Your task to perform on an android device: Search for "dell xps" on target, select the first entry, and add it to the cart. Image 0: 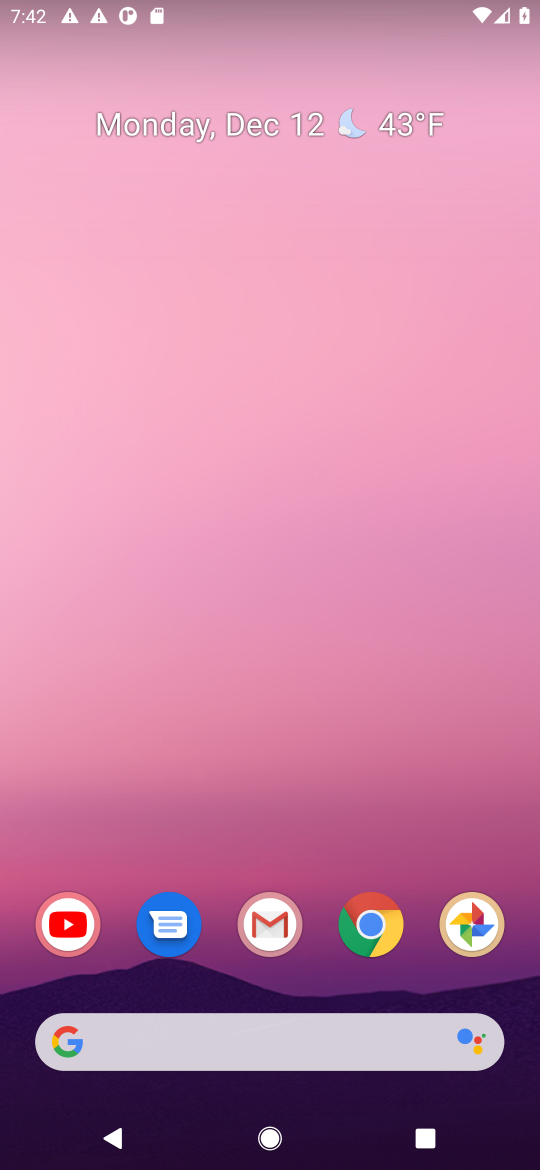
Step 0: click (255, 1041)
Your task to perform on an android device: Search for "dell xps" on target, select the first entry, and add it to the cart. Image 1: 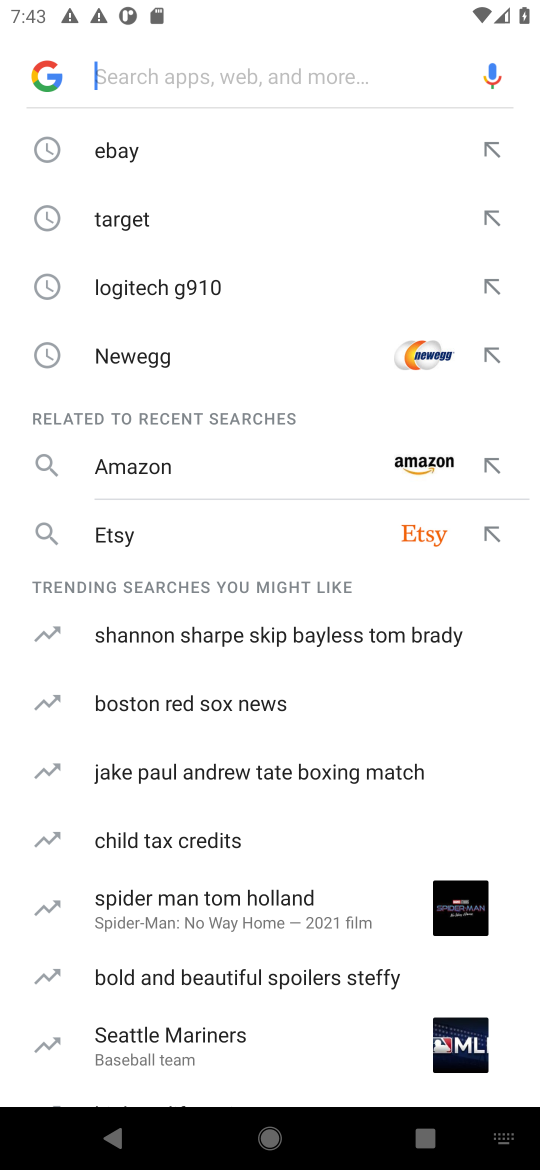
Step 1: click (148, 228)
Your task to perform on an android device: Search for "dell xps" on target, select the first entry, and add it to the cart. Image 2: 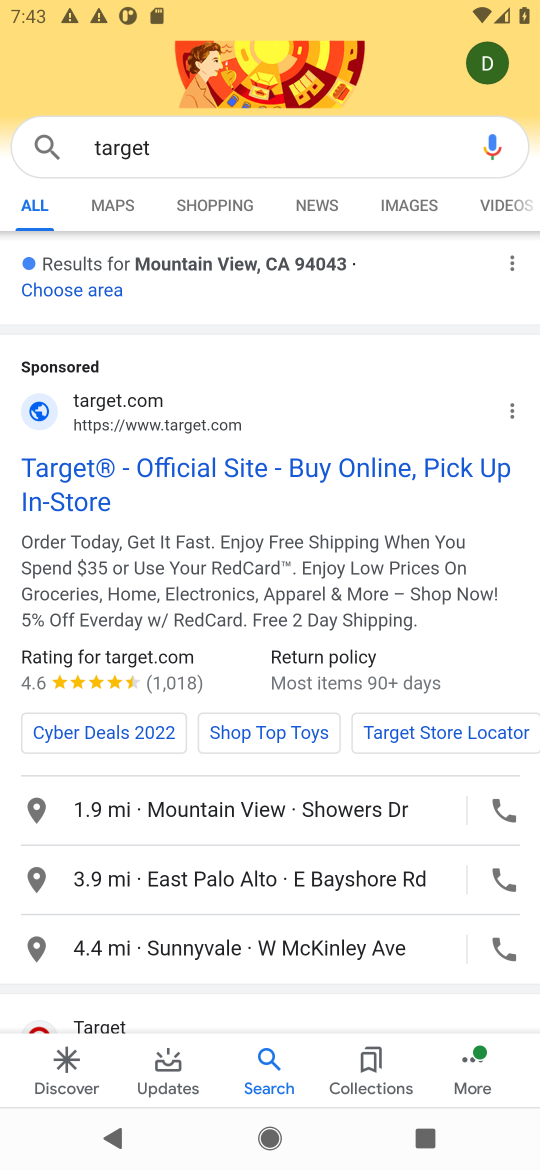
Step 2: drag from (229, 547) to (237, 250)
Your task to perform on an android device: Search for "dell xps" on target, select the first entry, and add it to the cart. Image 3: 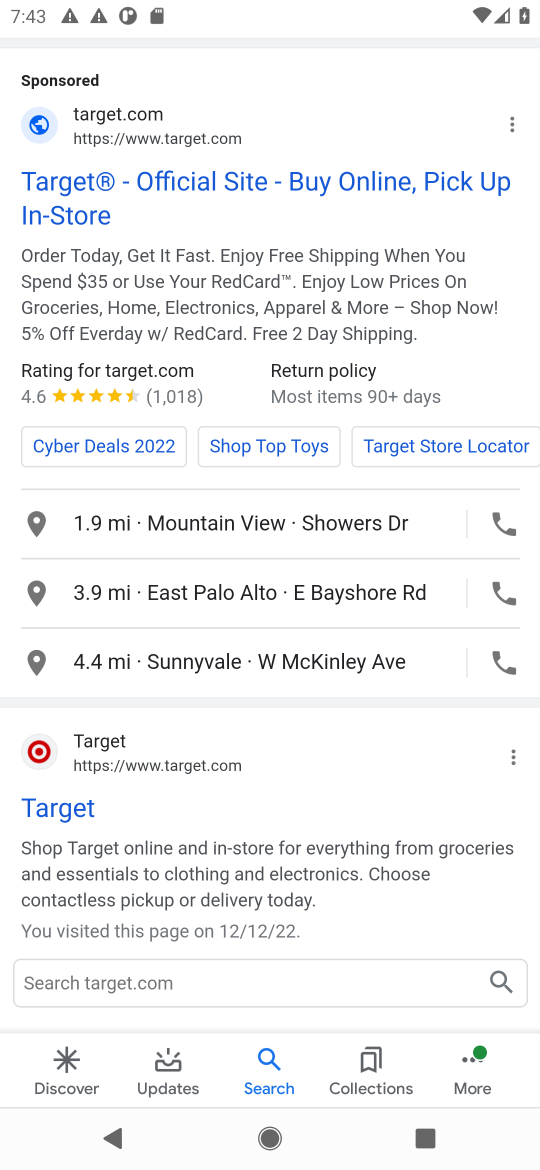
Step 3: click (78, 798)
Your task to perform on an android device: Search for "dell xps" on target, select the first entry, and add it to the cart. Image 4: 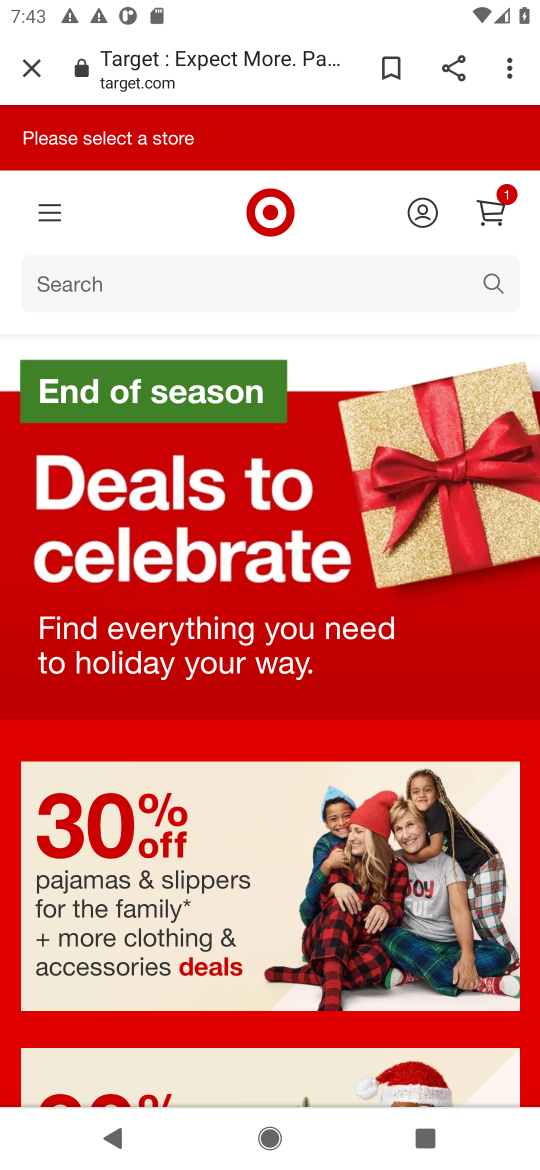
Step 4: click (127, 271)
Your task to perform on an android device: Search for "dell xps" on target, select the first entry, and add it to the cart. Image 5: 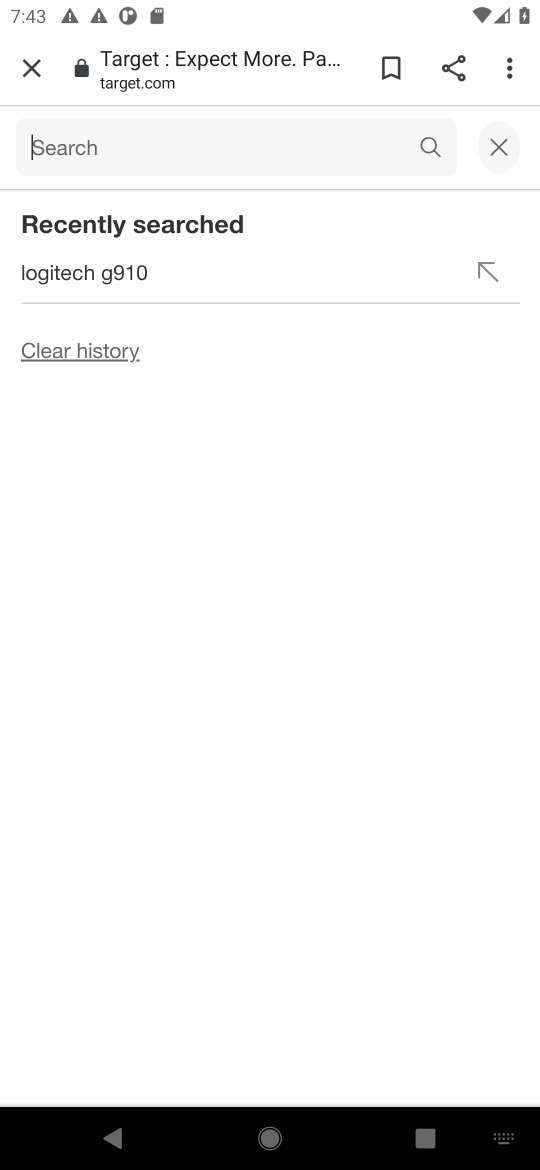
Step 5: type "dell xps"
Your task to perform on an android device: Search for "dell xps" on target, select the first entry, and add it to the cart. Image 6: 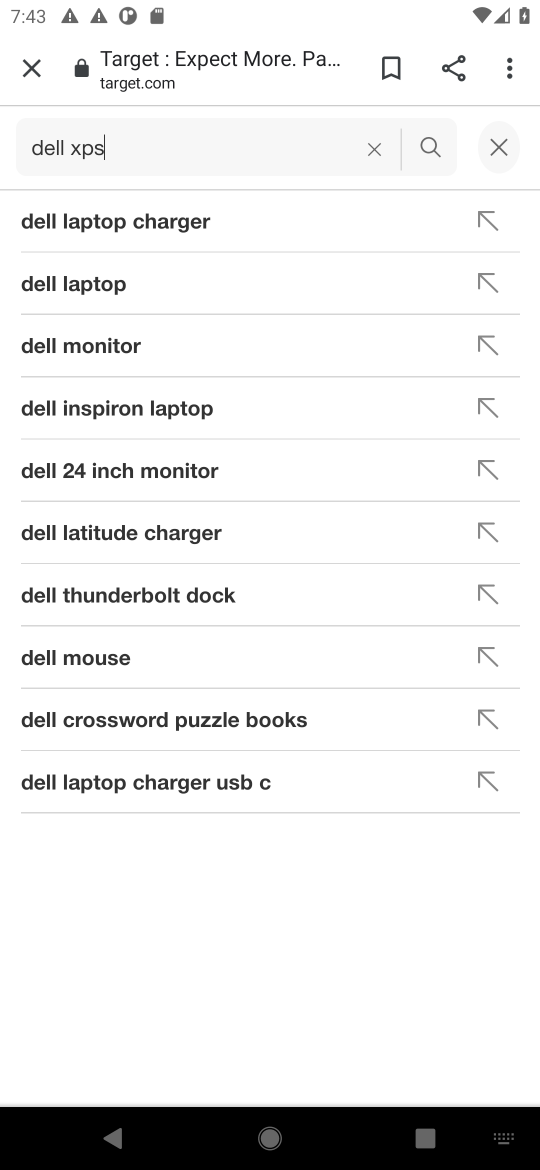
Step 6: click (444, 154)
Your task to perform on an android device: Search for "dell xps" on target, select the first entry, and add it to the cart. Image 7: 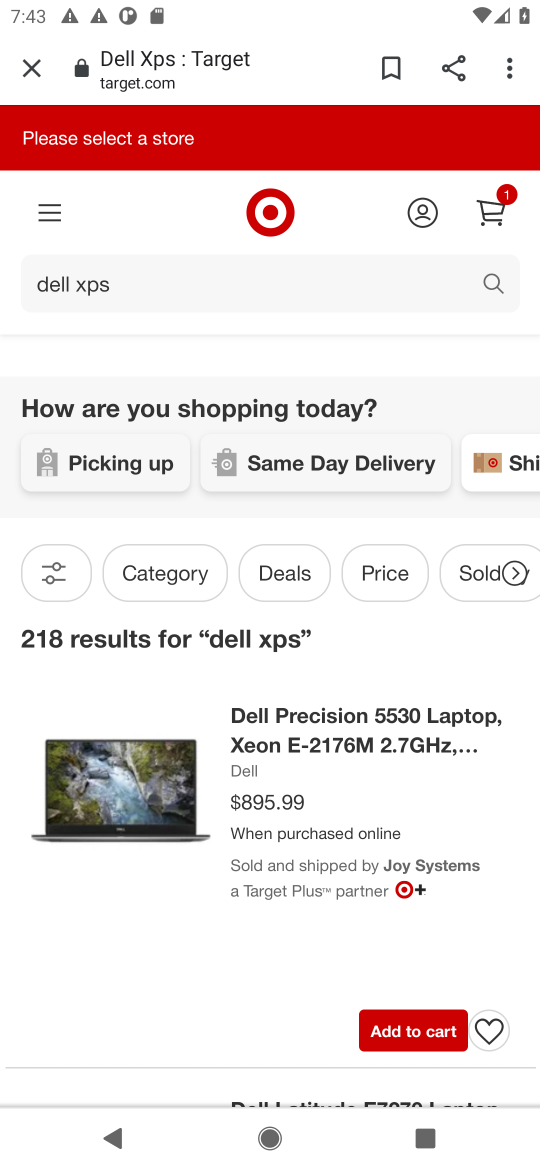
Step 7: click (408, 1026)
Your task to perform on an android device: Search for "dell xps" on target, select the first entry, and add it to the cart. Image 8: 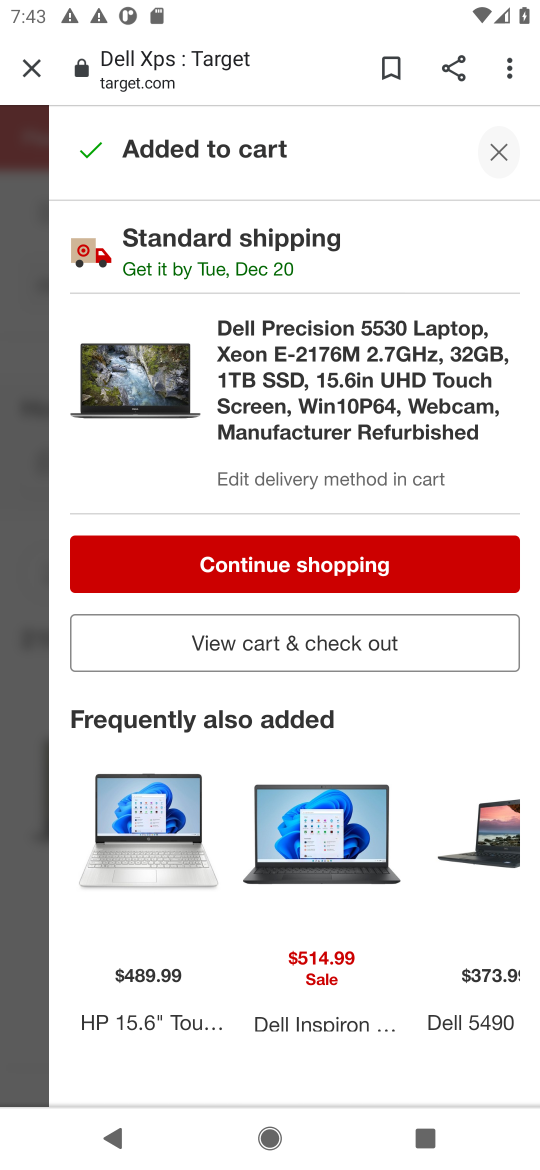
Step 8: task complete